Your task to perform on an android device: Go to ESPN.com Image 0: 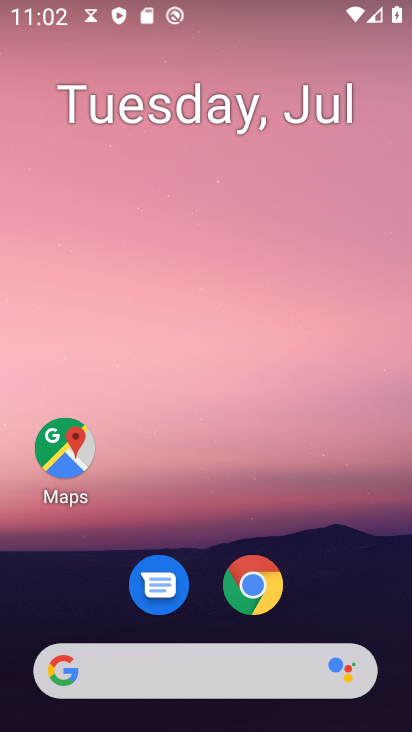
Step 0: click (251, 608)
Your task to perform on an android device: Go to ESPN.com Image 1: 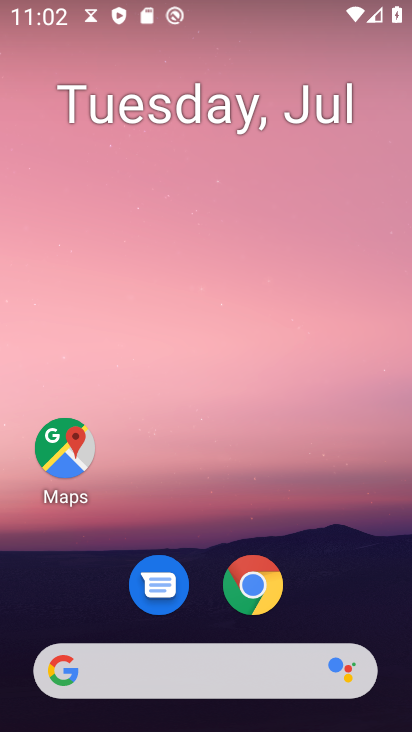
Step 1: click (270, 573)
Your task to perform on an android device: Go to ESPN.com Image 2: 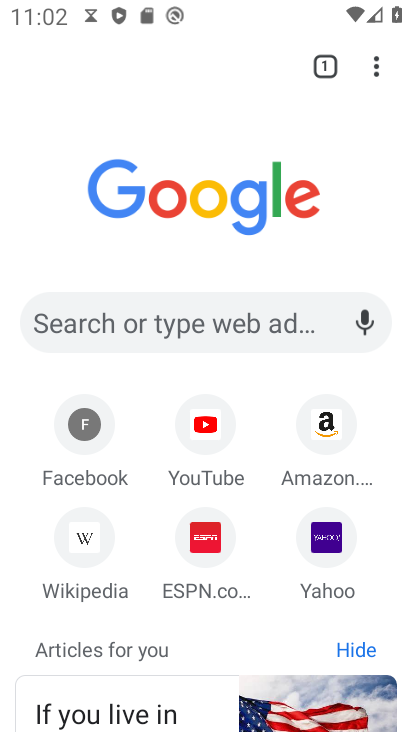
Step 2: click (192, 551)
Your task to perform on an android device: Go to ESPN.com Image 3: 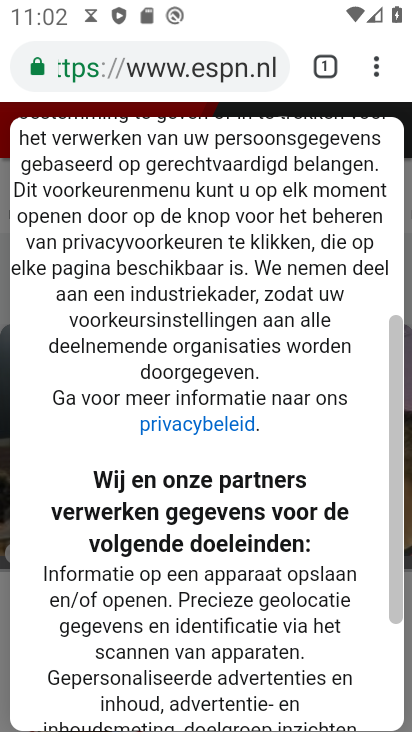
Step 3: task complete